Your task to perform on an android device: Go to Google maps Image 0: 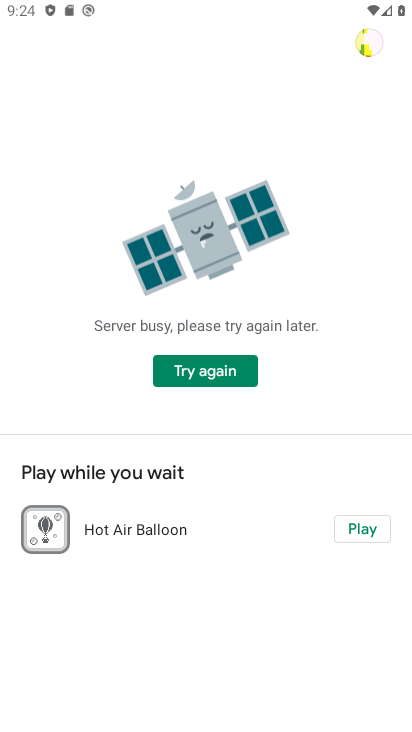
Step 0: press home button
Your task to perform on an android device: Go to Google maps Image 1: 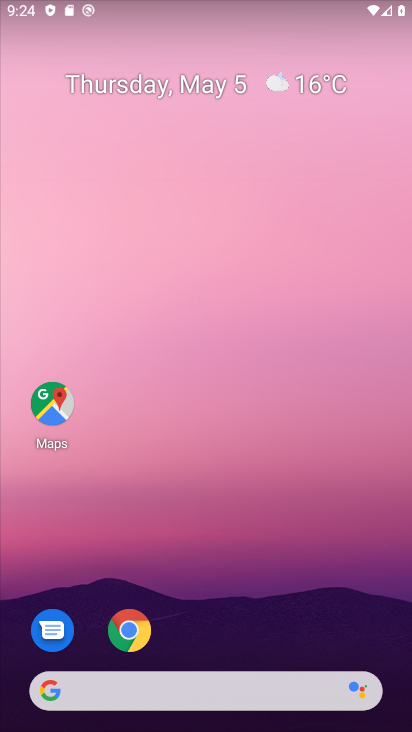
Step 1: click (57, 409)
Your task to perform on an android device: Go to Google maps Image 2: 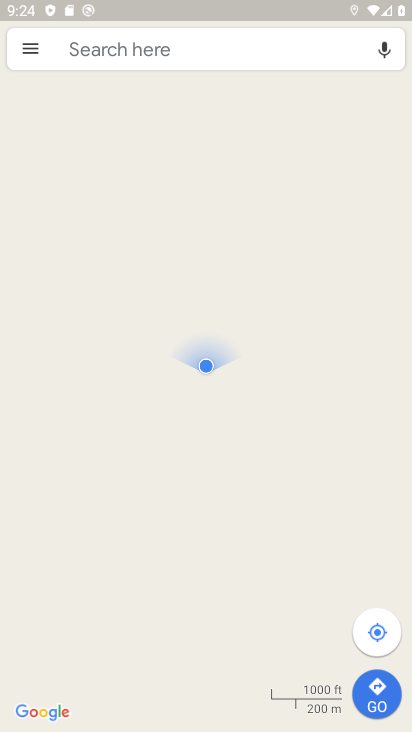
Step 2: task complete